Your task to perform on an android device: Open calendar and show me the first week of next month Image 0: 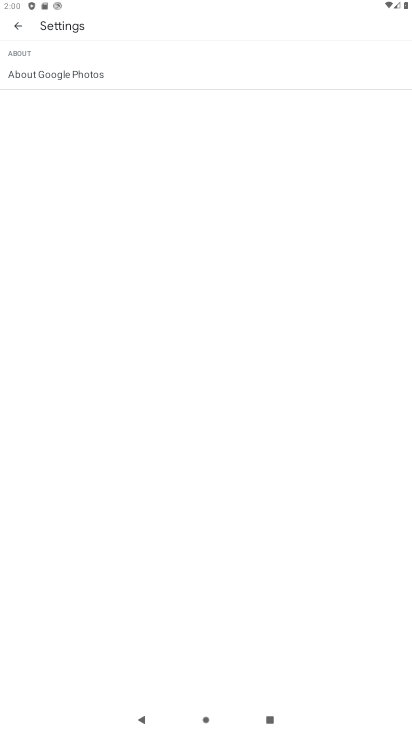
Step 0: press home button
Your task to perform on an android device: Open calendar and show me the first week of next month Image 1: 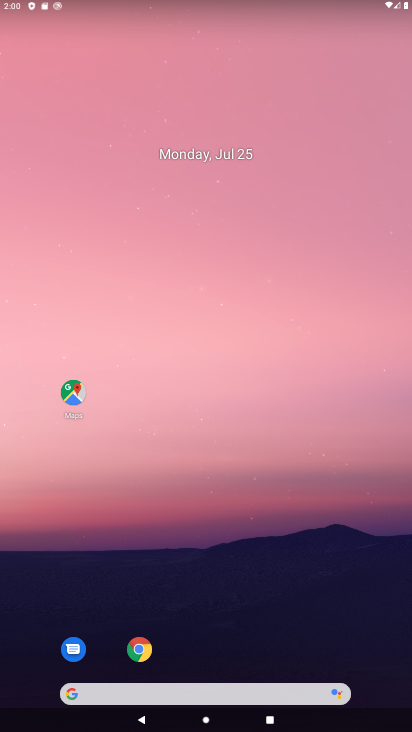
Step 1: drag from (373, 654) to (328, 97)
Your task to perform on an android device: Open calendar and show me the first week of next month Image 2: 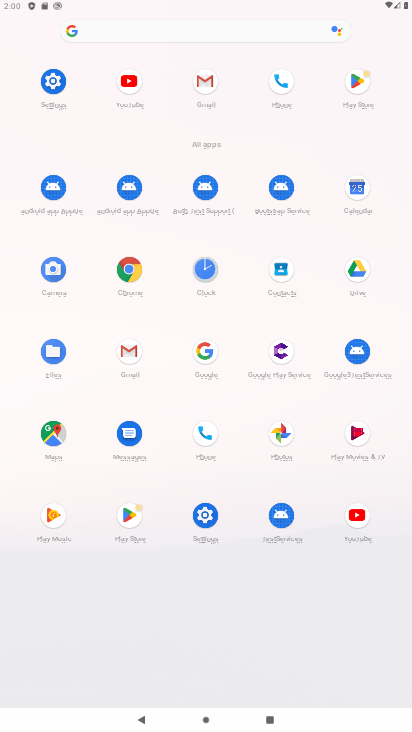
Step 2: click (356, 190)
Your task to perform on an android device: Open calendar and show me the first week of next month Image 3: 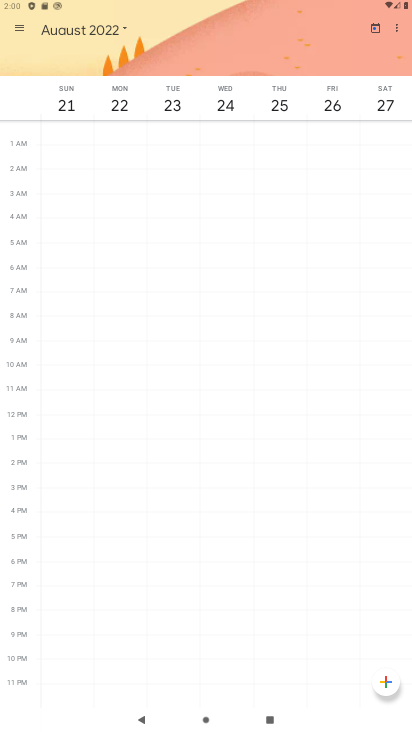
Step 3: click (15, 28)
Your task to perform on an android device: Open calendar and show me the first week of next month Image 4: 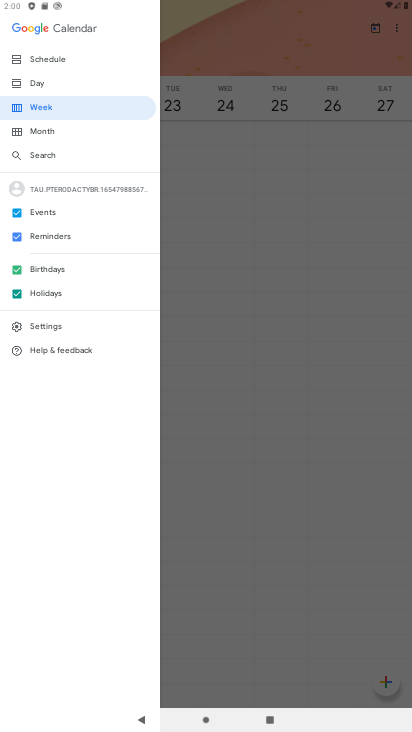
Step 4: click (247, 249)
Your task to perform on an android device: Open calendar and show me the first week of next month Image 5: 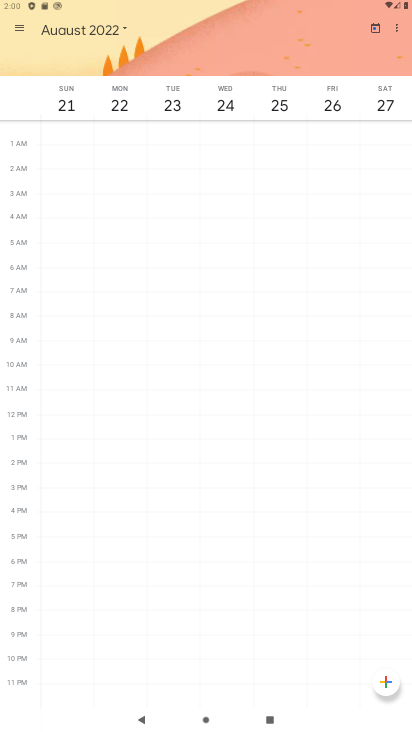
Step 5: click (124, 25)
Your task to perform on an android device: Open calendar and show me the first week of next month Image 6: 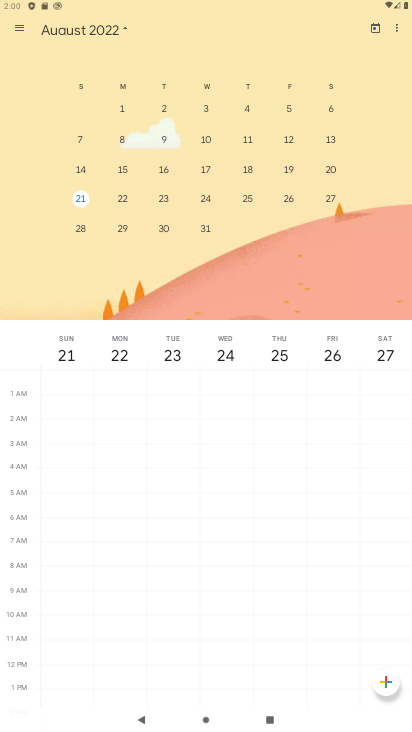
Step 6: click (82, 138)
Your task to perform on an android device: Open calendar and show me the first week of next month Image 7: 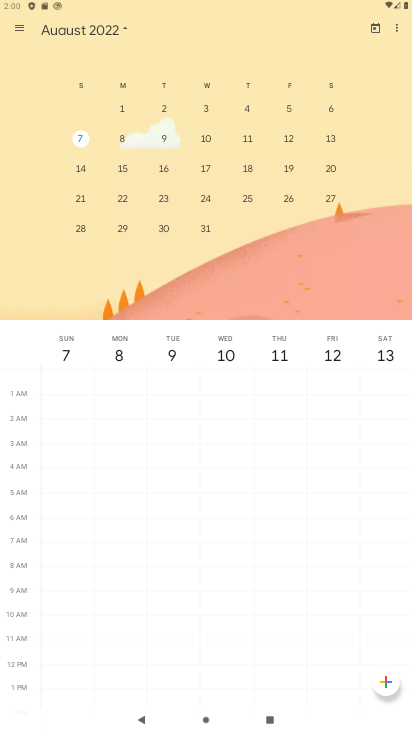
Step 7: task complete